Your task to perform on an android device: Go to Google maps Image 0: 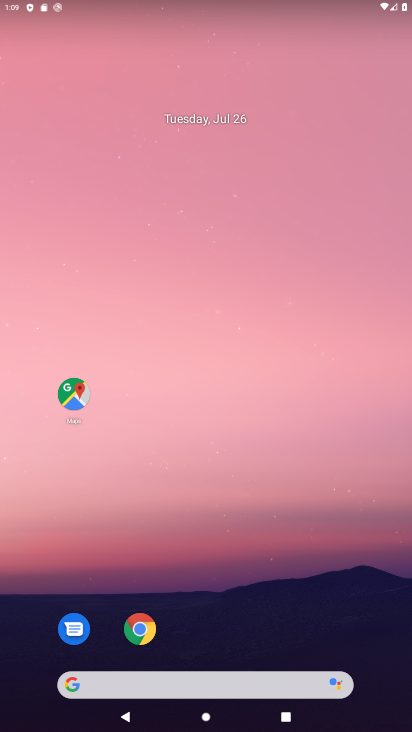
Step 0: click (71, 391)
Your task to perform on an android device: Go to Google maps Image 1: 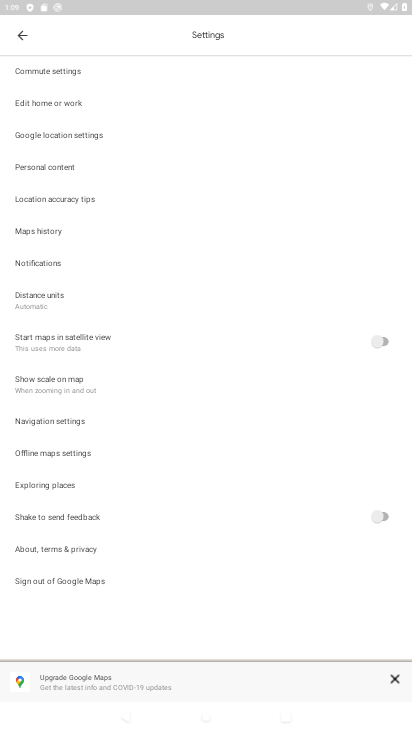
Step 1: click (30, 28)
Your task to perform on an android device: Go to Google maps Image 2: 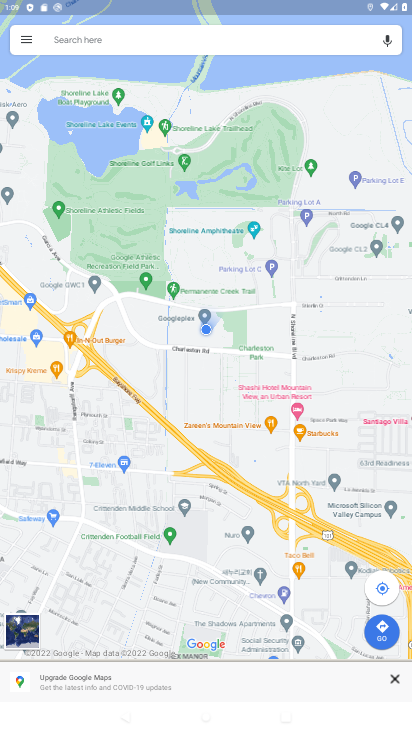
Step 2: task complete